Your task to perform on an android device: Open privacy settings Image 0: 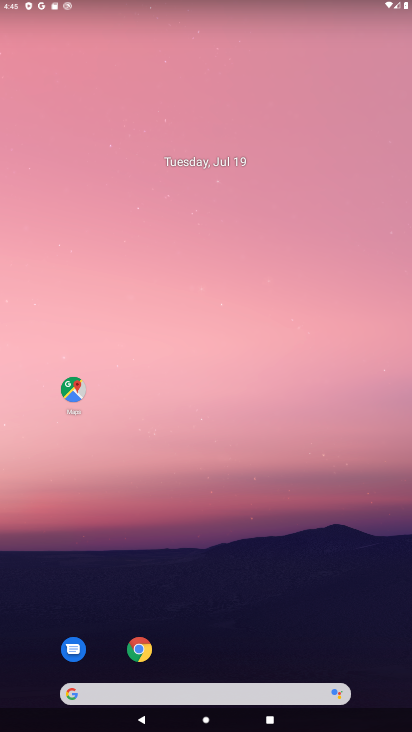
Step 0: drag from (243, 662) to (260, 47)
Your task to perform on an android device: Open privacy settings Image 1: 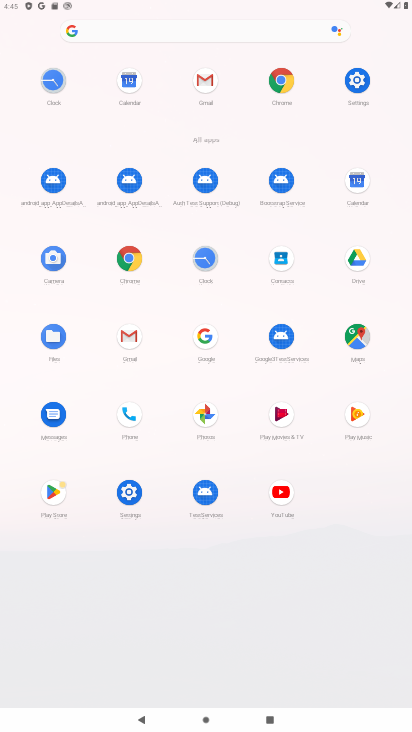
Step 1: click (357, 75)
Your task to perform on an android device: Open privacy settings Image 2: 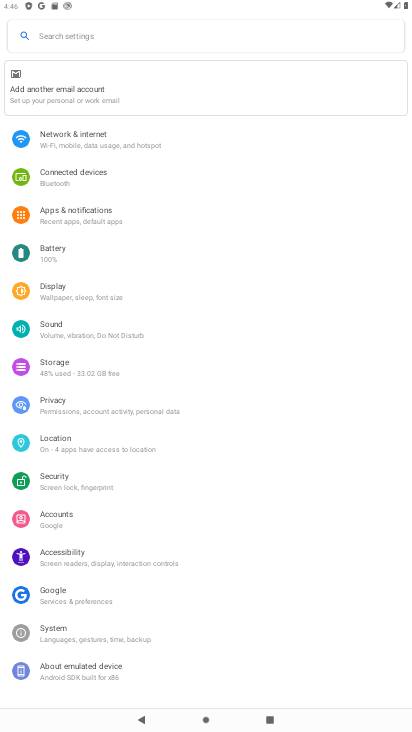
Step 2: click (70, 402)
Your task to perform on an android device: Open privacy settings Image 3: 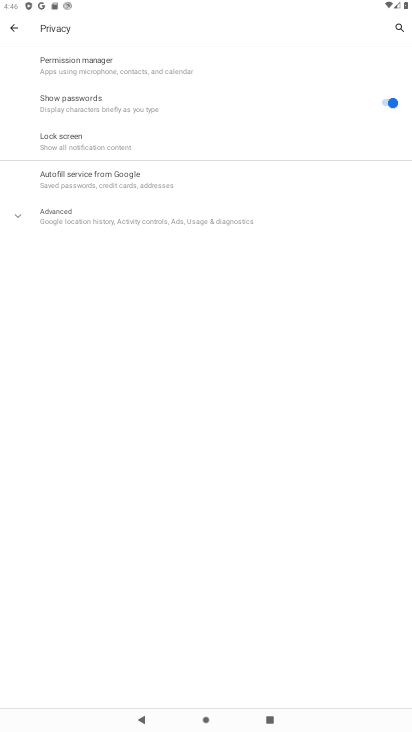
Step 3: click (24, 215)
Your task to perform on an android device: Open privacy settings Image 4: 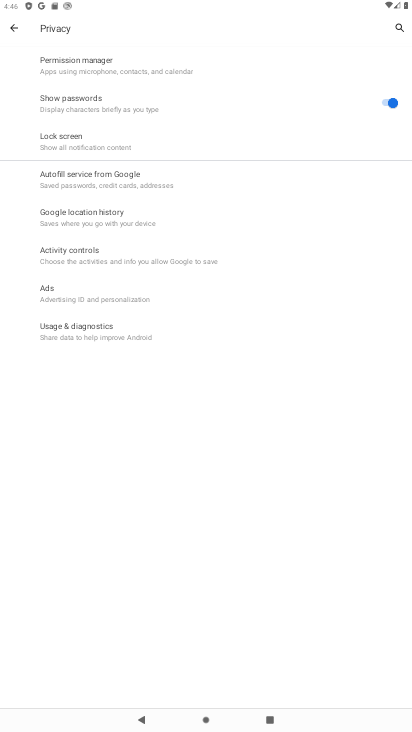
Step 4: task complete